Your task to perform on an android device: read, delete, or share a saved page in the chrome app Image 0: 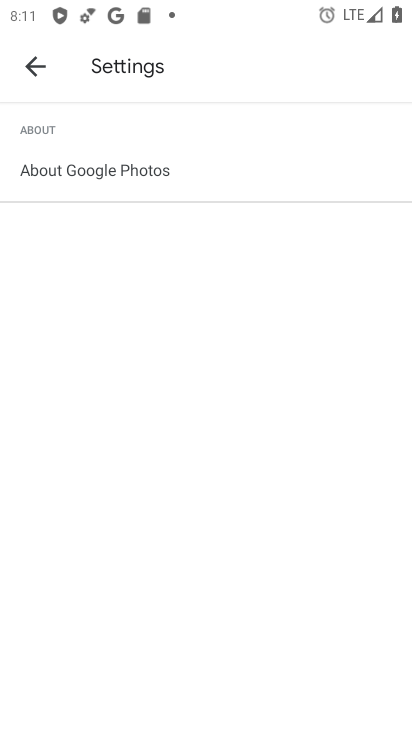
Step 0: press home button
Your task to perform on an android device: read, delete, or share a saved page in the chrome app Image 1: 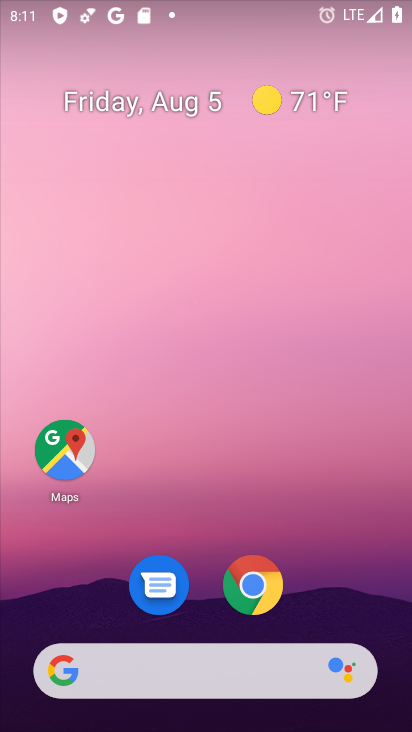
Step 1: click (256, 584)
Your task to perform on an android device: read, delete, or share a saved page in the chrome app Image 2: 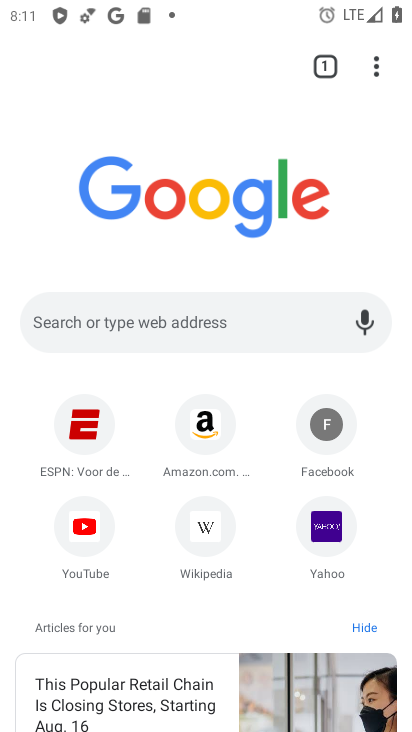
Step 2: click (378, 69)
Your task to perform on an android device: read, delete, or share a saved page in the chrome app Image 3: 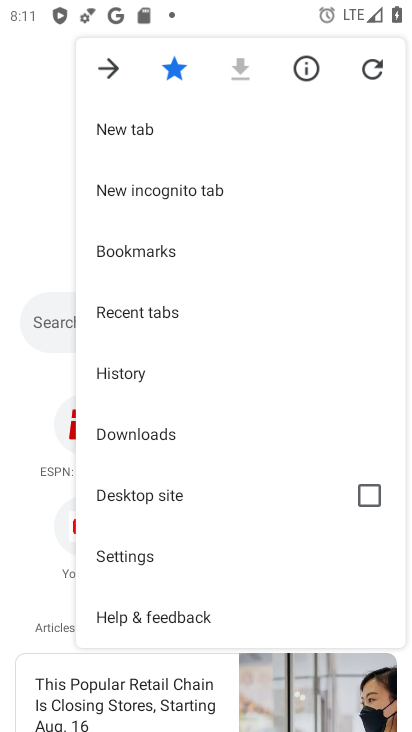
Step 3: click (154, 431)
Your task to perform on an android device: read, delete, or share a saved page in the chrome app Image 4: 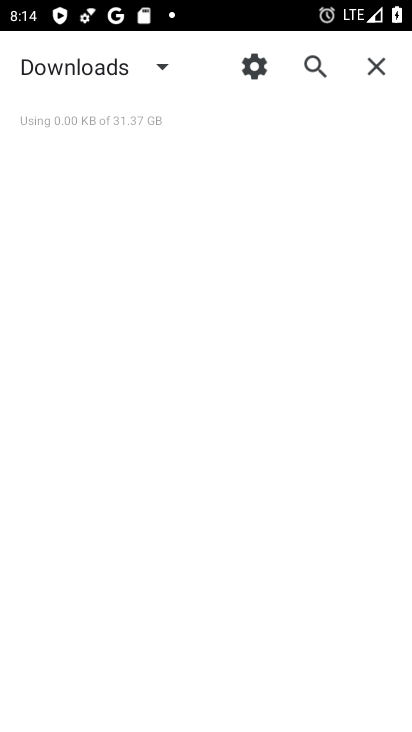
Step 4: task complete